Your task to perform on an android device: empty trash in the gmail app Image 0: 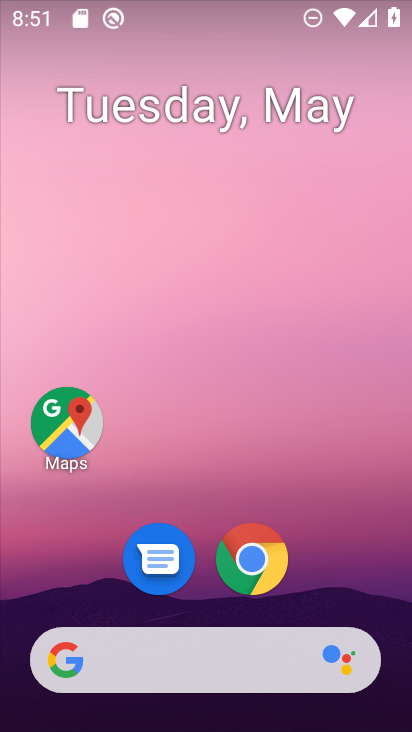
Step 0: drag from (228, 610) to (296, 211)
Your task to perform on an android device: empty trash in the gmail app Image 1: 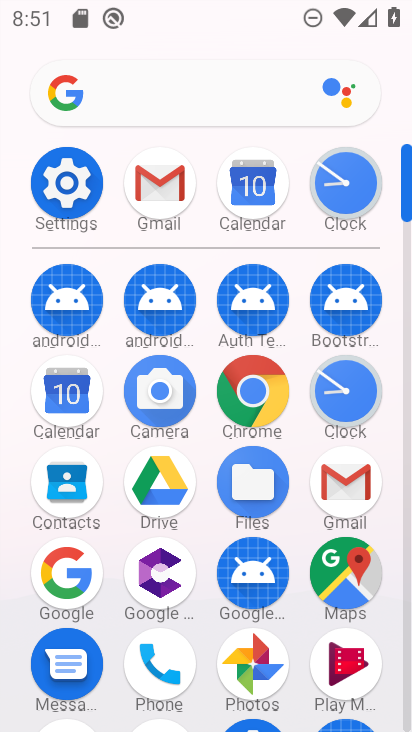
Step 1: click (172, 183)
Your task to perform on an android device: empty trash in the gmail app Image 2: 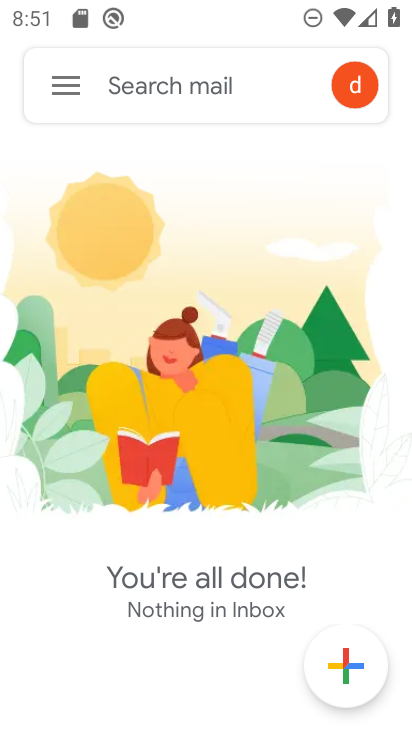
Step 2: click (65, 80)
Your task to perform on an android device: empty trash in the gmail app Image 3: 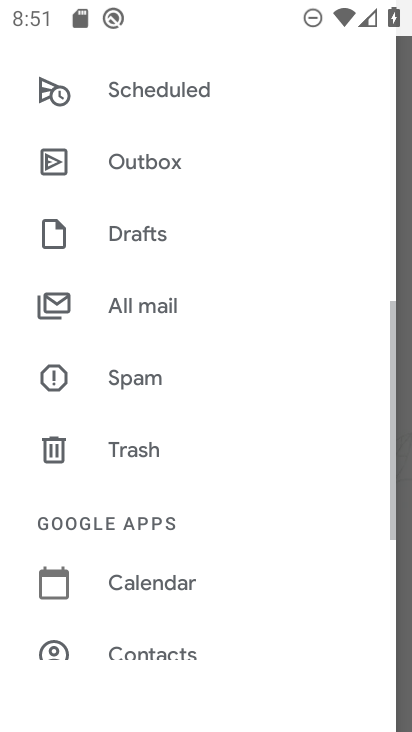
Step 3: click (129, 454)
Your task to perform on an android device: empty trash in the gmail app Image 4: 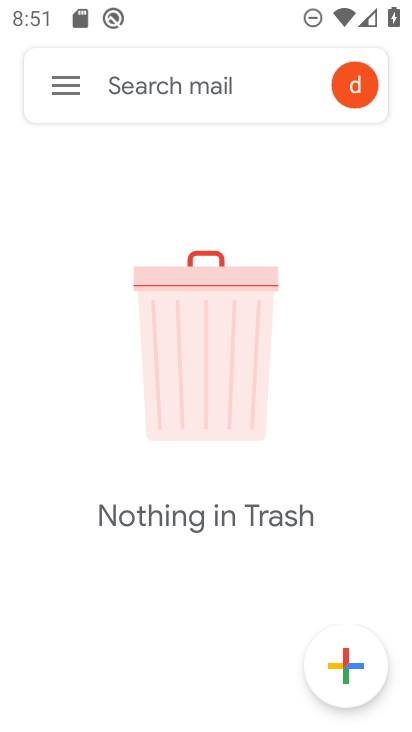
Step 4: task complete